Your task to perform on an android device: install app "The Home Depot" Image 0: 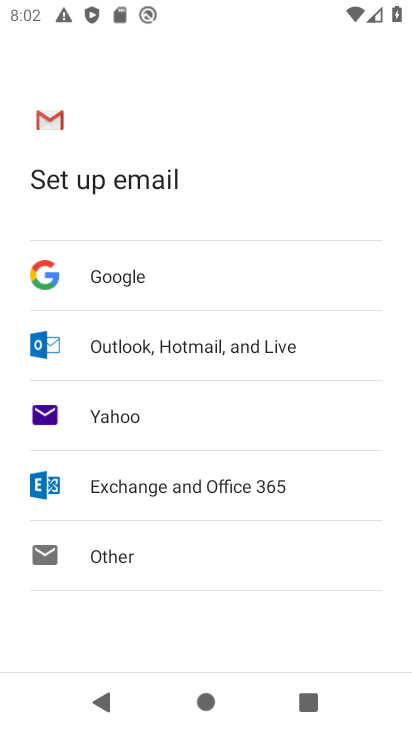
Step 0: press back button
Your task to perform on an android device: install app "The Home Depot" Image 1: 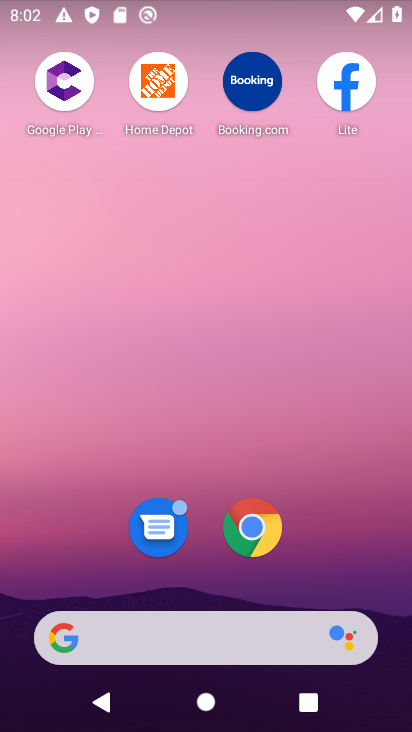
Step 1: click (152, 107)
Your task to perform on an android device: install app "The Home Depot" Image 2: 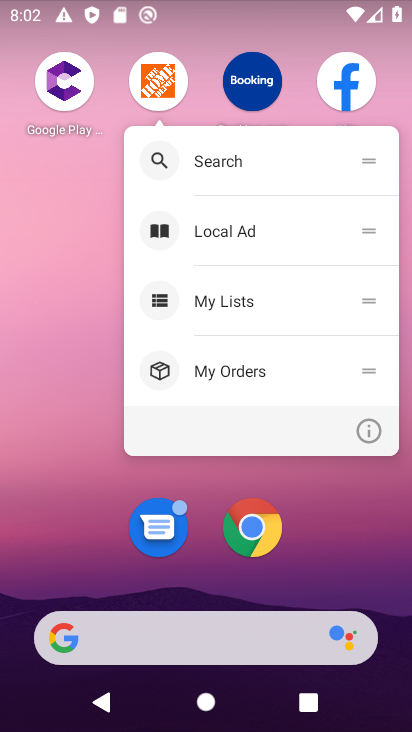
Step 2: click (150, 88)
Your task to perform on an android device: install app "The Home Depot" Image 3: 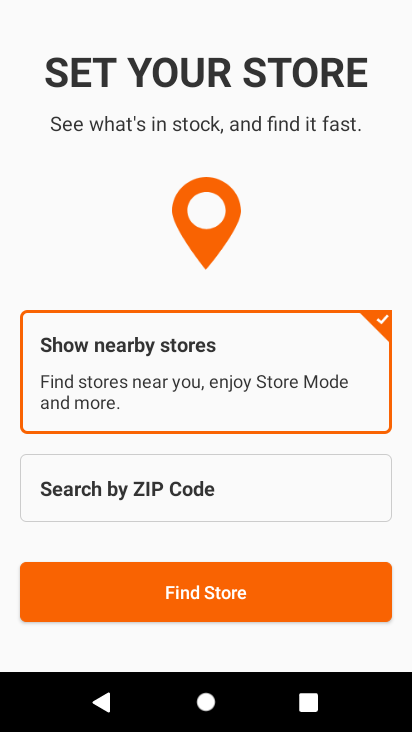
Step 3: task complete